Your task to perform on an android device: open app "ColorNote Notepad Notes" (install if not already installed) Image 0: 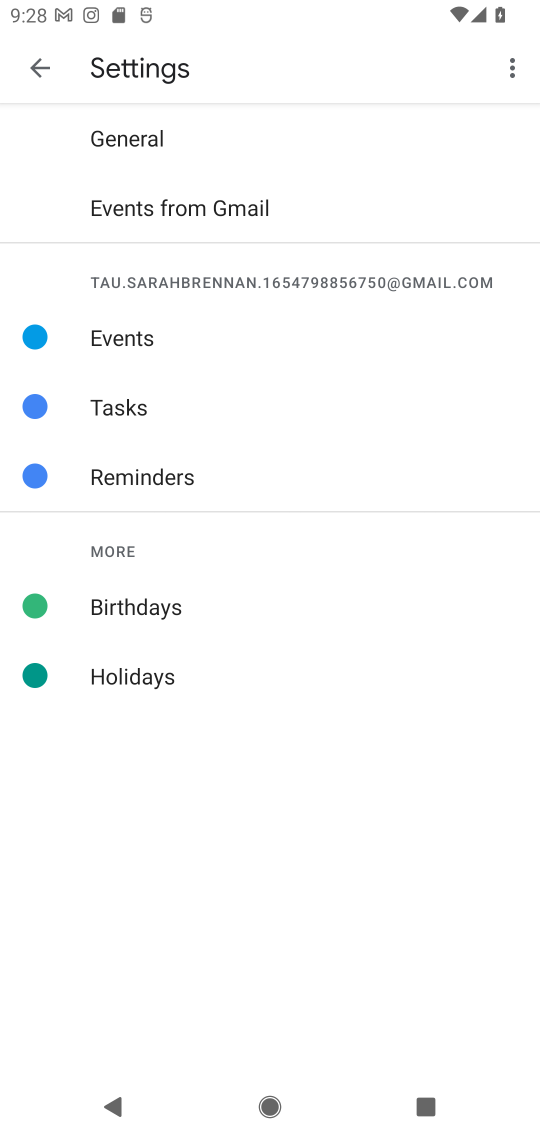
Step 0: press home button
Your task to perform on an android device: open app "ColorNote Notepad Notes" (install if not already installed) Image 1: 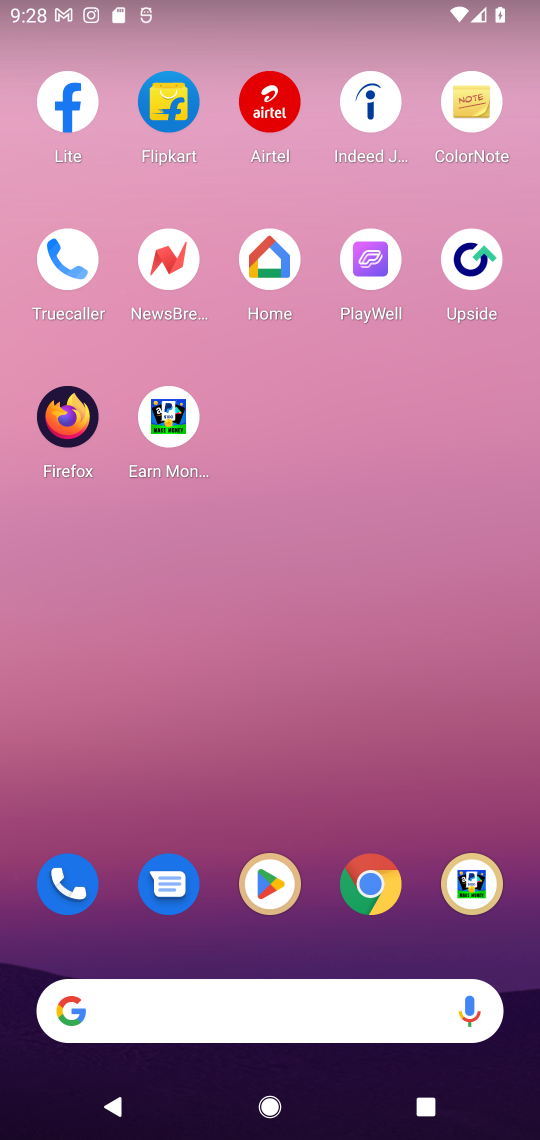
Step 1: drag from (152, 1006) to (249, 164)
Your task to perform on an android device: open app "ColorNote Notepad Notes" (install if not already installed) Image 2: 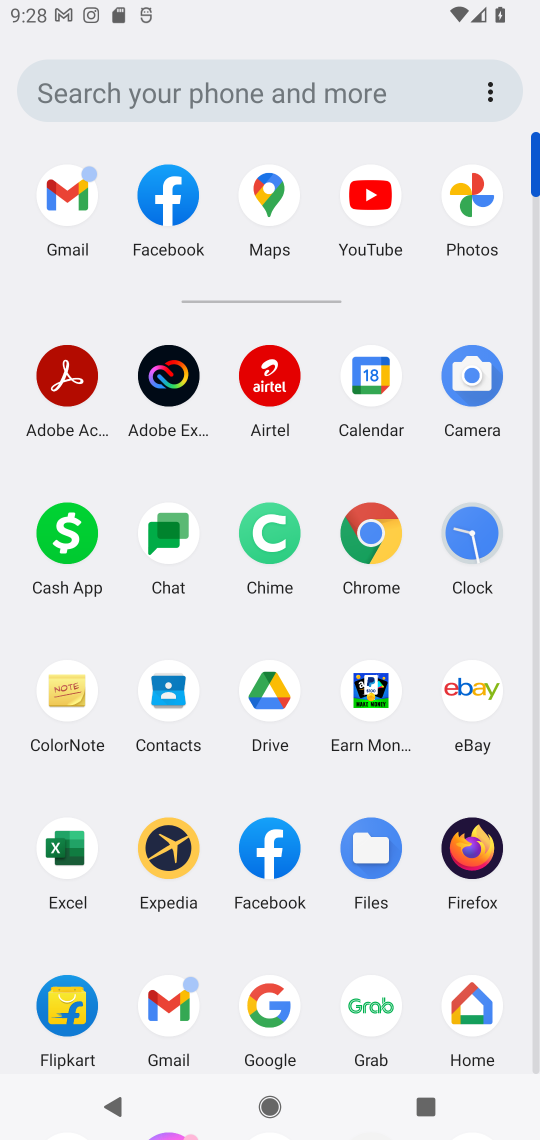
Step 2: drag from (211, 969) to (205, 376)
Your task to perform on an android device: open app "ColorNote Notepad Notes" (install if not already installed) Image 3: 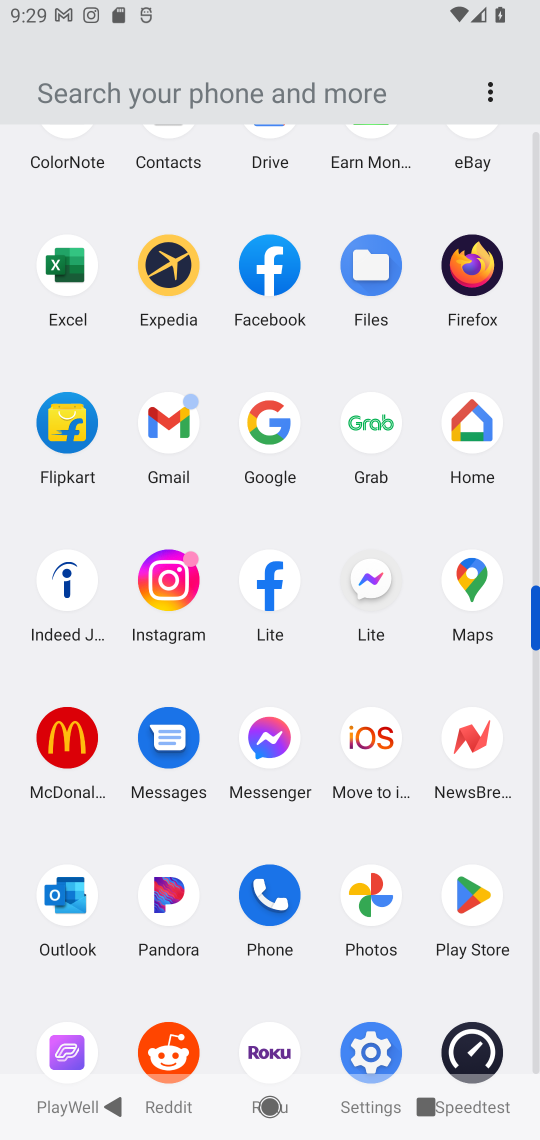
Step 3: click (473, 890)
Your task to perform on an android device: open app "ColorNote Notepad Notes" (install if not already installed) Image 4: 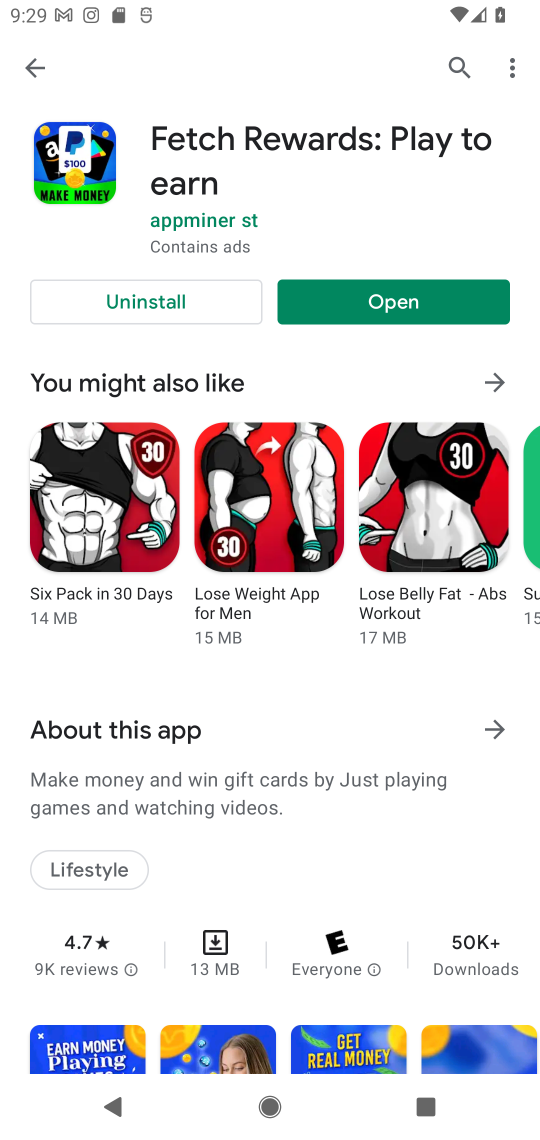
Step 4: press back button
Your task to perform on an android device: open app "ColorNote Notepad Notes" (install if not already installed) Image 5: 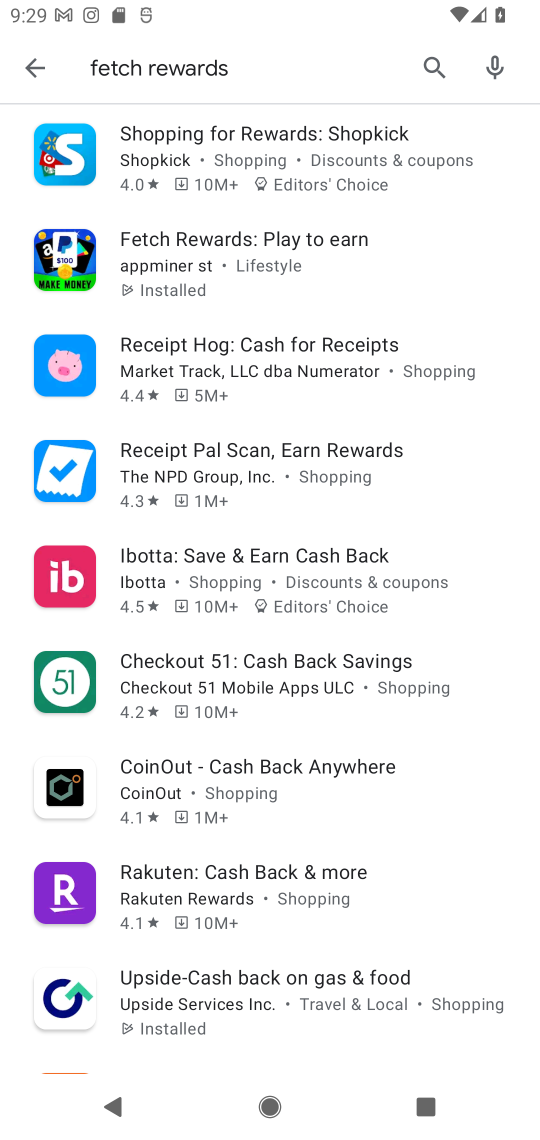
Step 5: press back button
Your task to perform on an android device: open app "ColorNote Notepad Notes" (install if not already installed) Image 6: 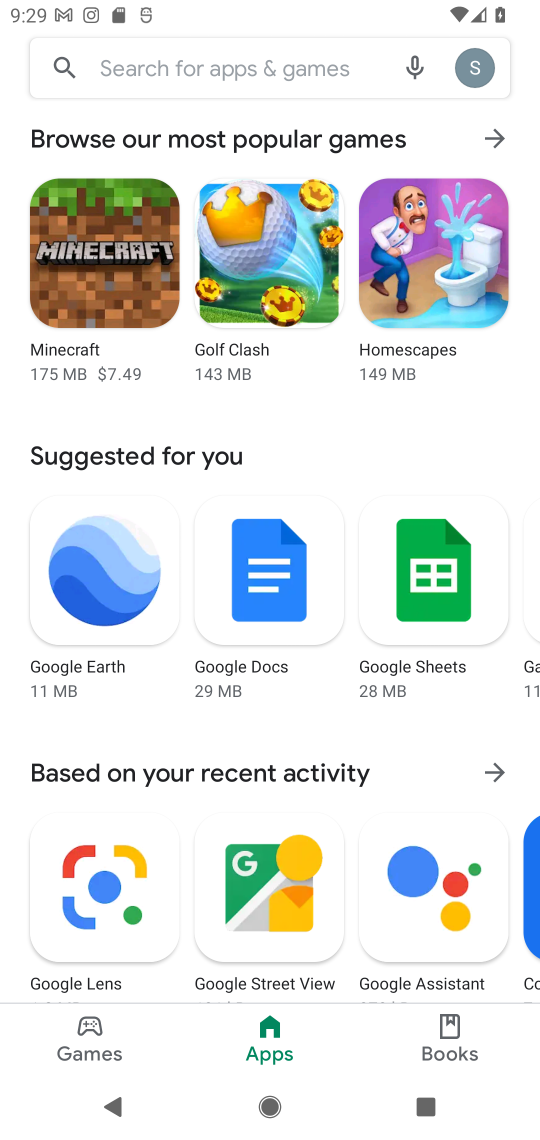
Step 6: click (307, 78)
Your task to perform on an android device: open app "ColorNote Notepad Notes" (install if not already installed) Image 7: 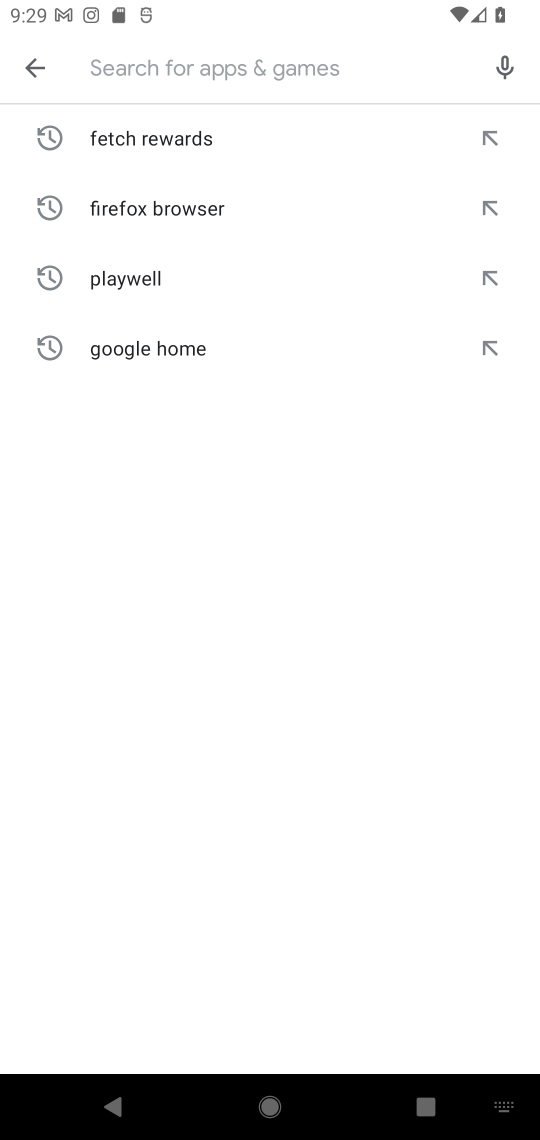
Step 7: type "ColorNote Notepad Notes"
Your task to perform on an android device: open app "ColorNote Notepad Notes" (install if not already installed) Image 8: 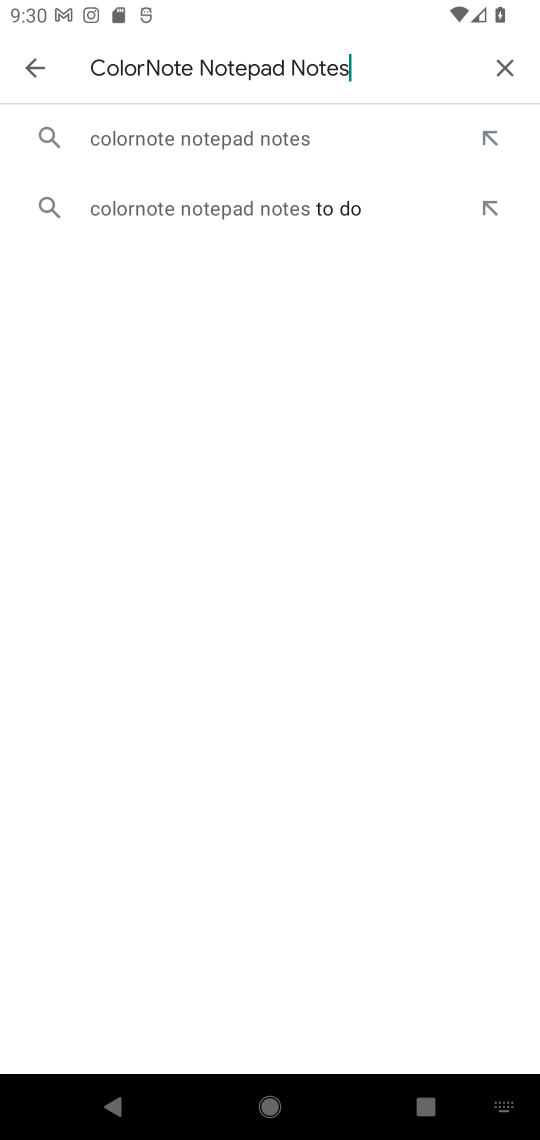
Step 8: click (225, 139)
Your task to perform on an android device: open app "ColorNote Notepad Notes" (install if not already installed) Image 9: 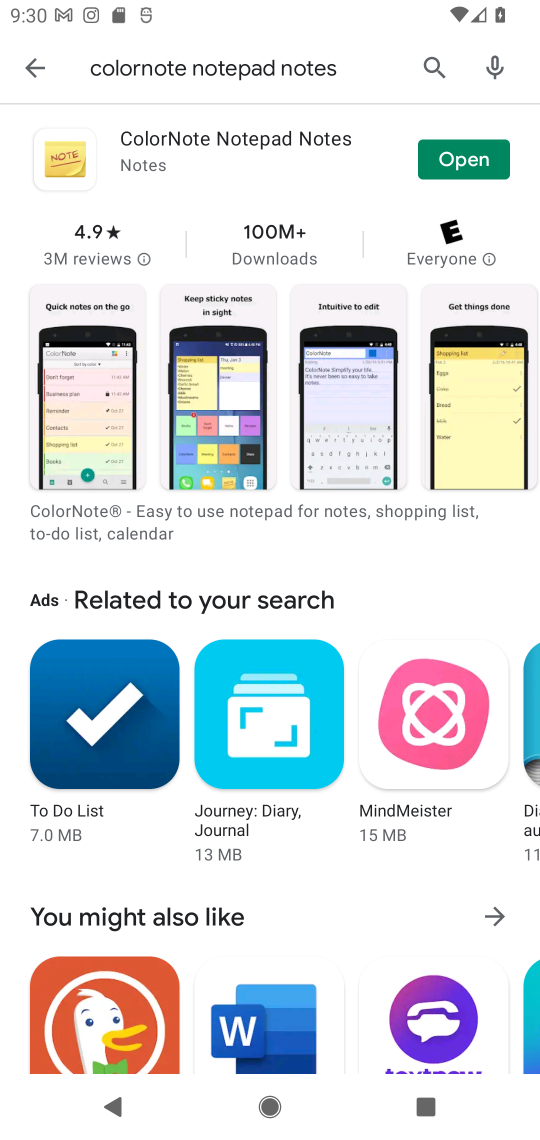
Step 9: click (472, 159)
Your task to perform on an android device: open app "ColorNote Notepad Notes" (install if not already installed) Image 10: 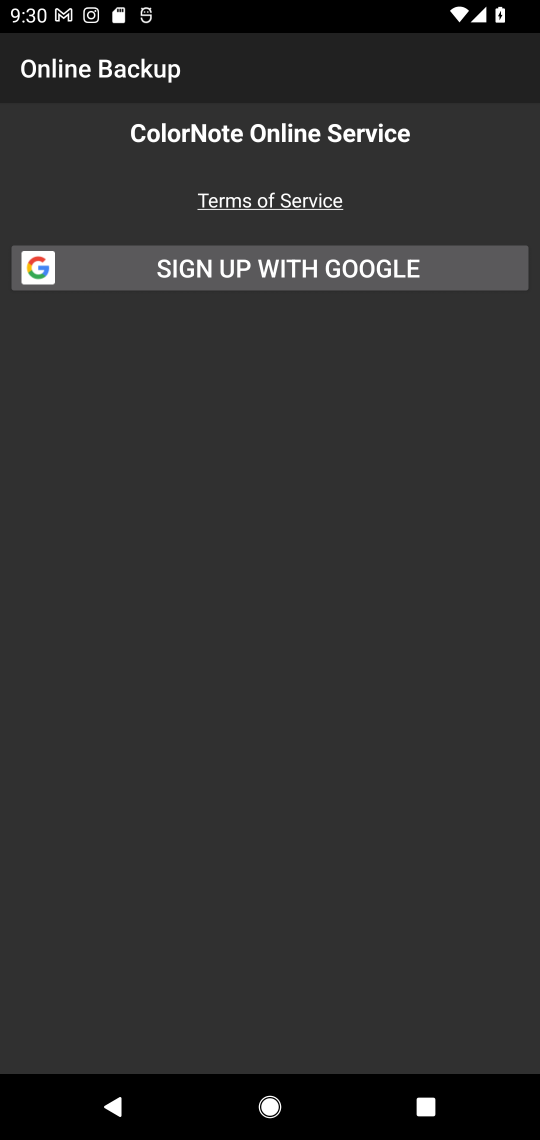
Step 10: click (361, 276)
Your task to perform on an android device: open app "ColorNote Notepad Notes" (install if not already installed) Image 11: 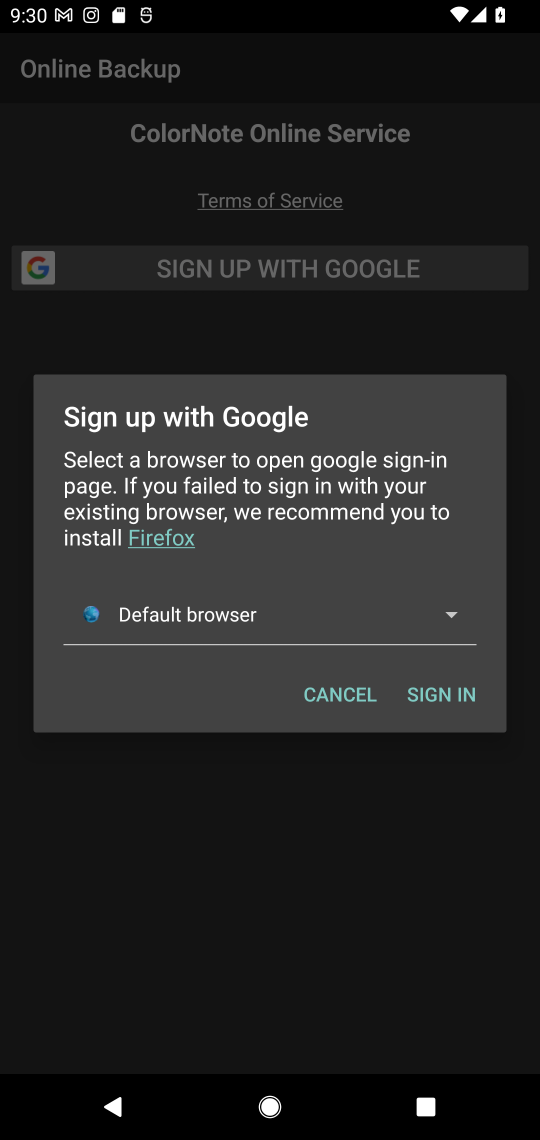
Step 11: task complete